Your task to perform on an android device: What is the recent news? Image 0: 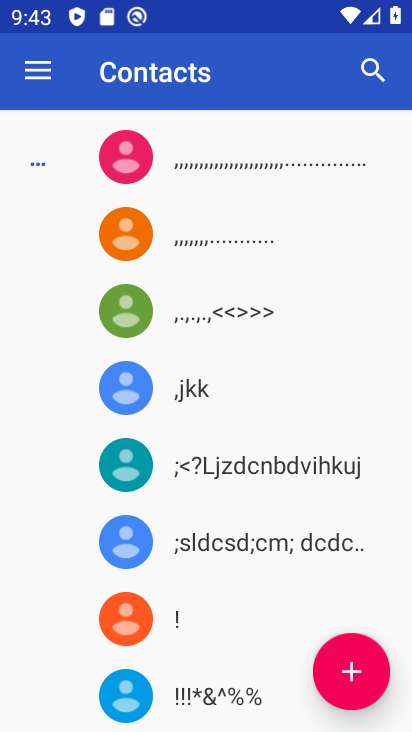
Step 0: press home button
Your task to perform on an android device: What is the recent news? Image 1: 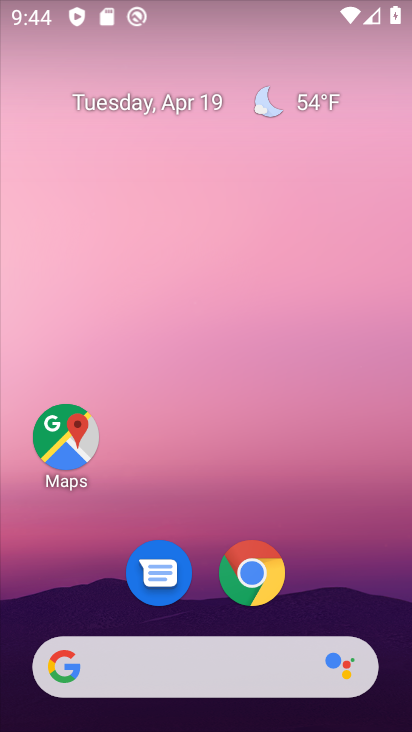
Step 1: task complete